Your task to perform on an android device: turn off airplane mode Image 0: 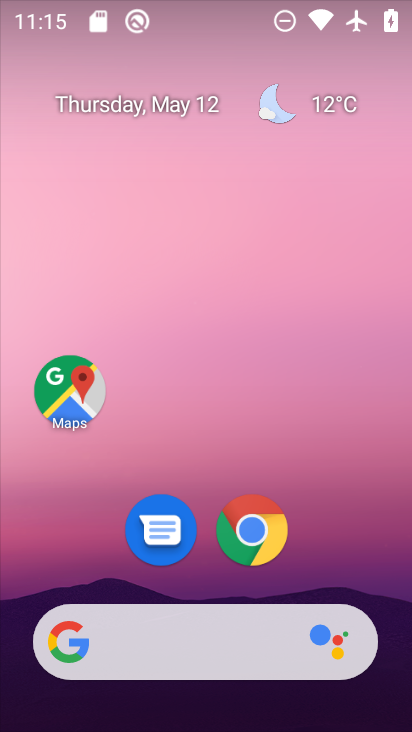
Step 0: drag from (280, 650) to (389, 287)
Your task to perform on an android device: turn off airplane mode Image 1: 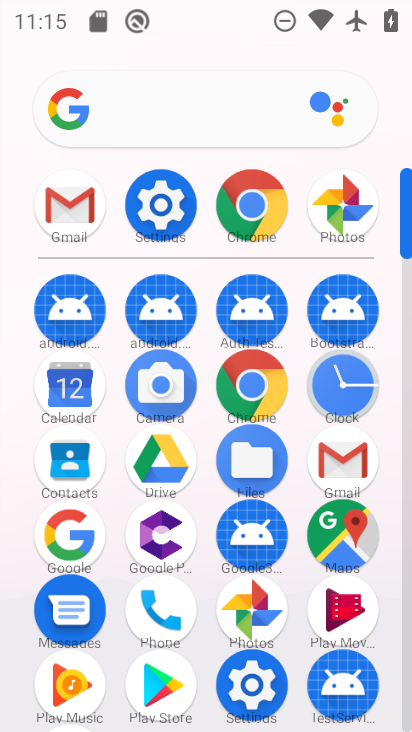
Step 1: click (162, 224)
Your task to perform on an android device: turn off airplane mode Image 2: 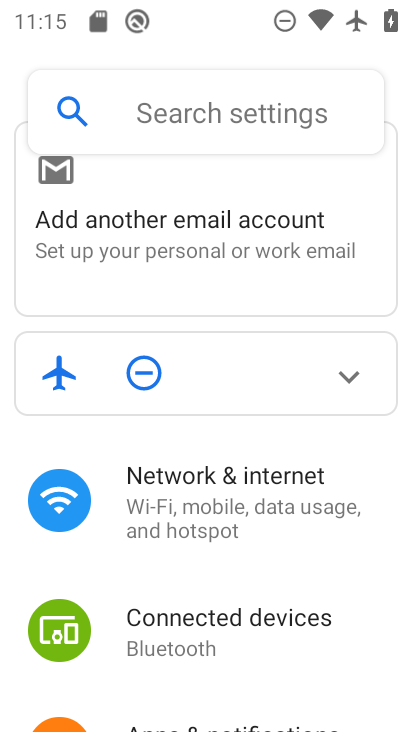
Step 2: click (205, 472)
Your task to perform on an android device: turn off airplane mode Image 3: 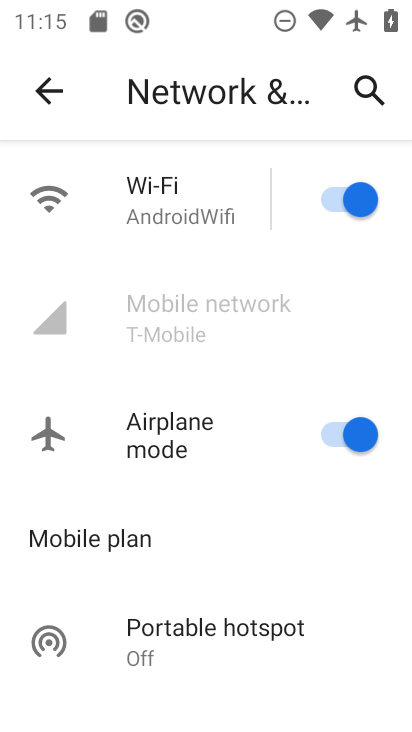
Step 3: click (329, 440)
Your task to perform on an android device: turn off airplane mode Image 4: 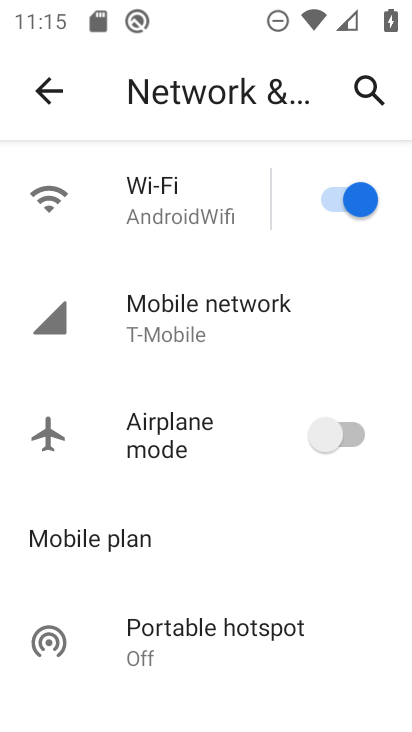
Step 4: task complete